Your task to perform on an android device: Open Reddit.com Image 0: 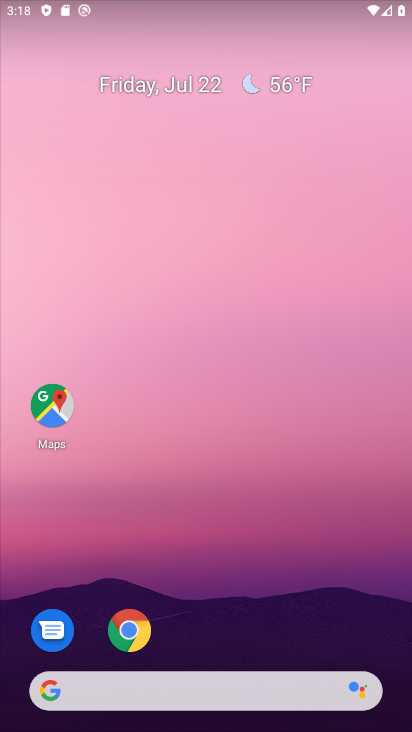
Step 0: drag from (328, 646) to (240, 186)
Your task to perform on an android device: Open Reddit.com Image 1: 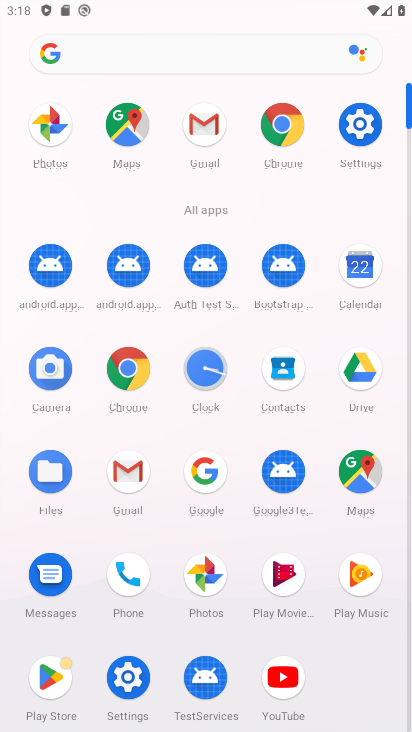
Step 1: click (286, 129)
Your task to perform on an android device: Open Reddit.com Image 2: 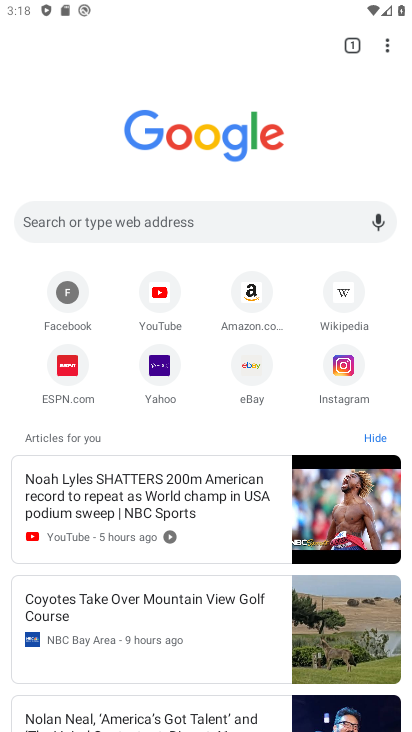
Step 2: click (285, 207)
Your task to perform on an android device: Open Reddit.com Image 3: 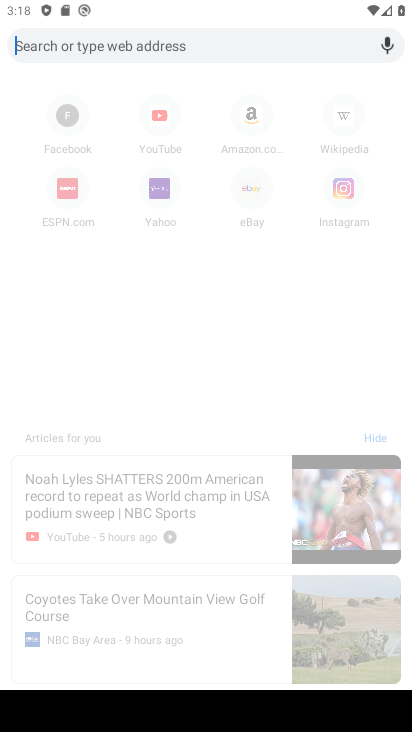
Step 3: type "reddit.com"
Your task to perform on an android device: Open Reddit.com Image 4: 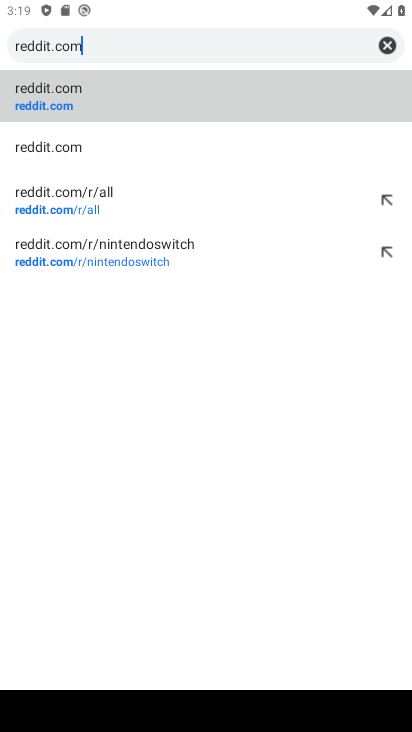
Step 4: click (171, 87)
Your task to perform on an android device: Open Reddit.com Image 5: 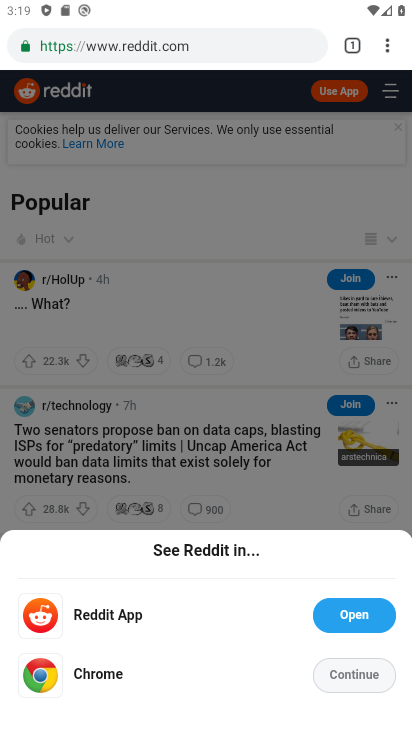
Step 5: task complete